Your task to perform on an android device: turn on the 24-hour format for clock Image 0: 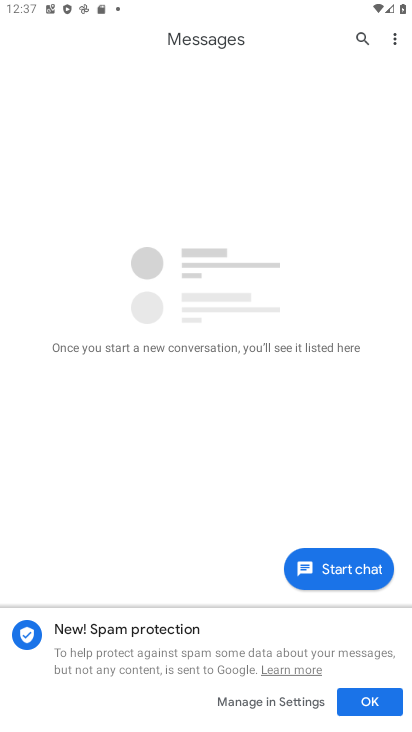
Step 0: press home button
Your task to perform on an android device: turn on the 24-hour format for clock Image 1: 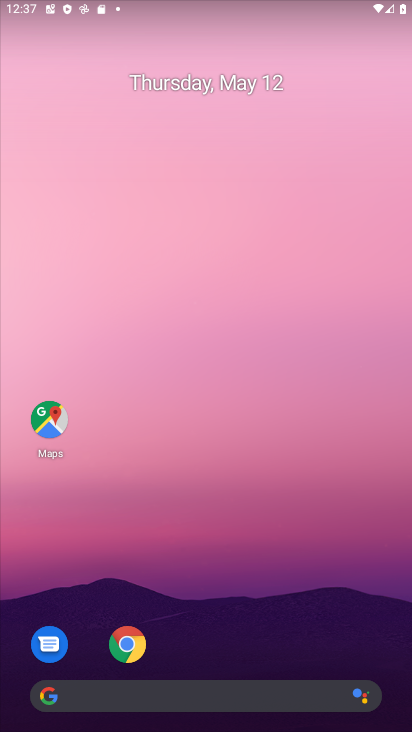
Step 1: drag from (302, 576) to (243, 196)
Your task to perform on an android device: turn on the 24-hour format for clock Image 2: 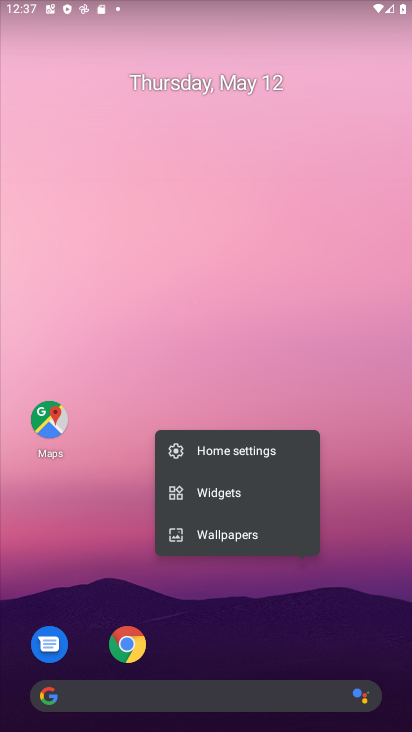
Step 2: click (337, 536)
Your task to perform on an android device: turn on the 24-hour format for clock Image 3: 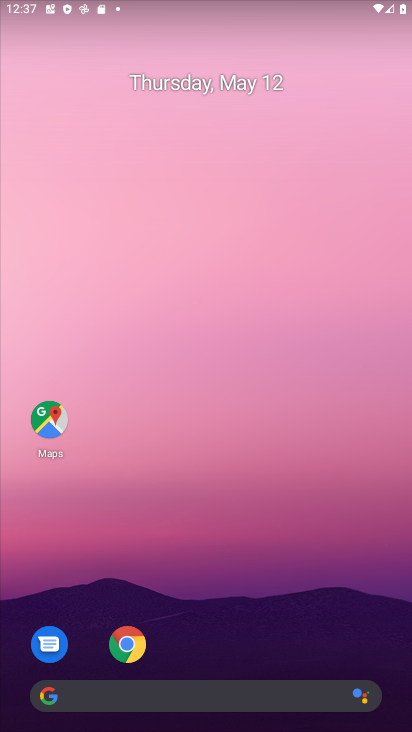
Step 3: drag from (308, 620) to (209, 37)
Your task to perform on an android device: turn on the 24-hour format for clock Image 4: 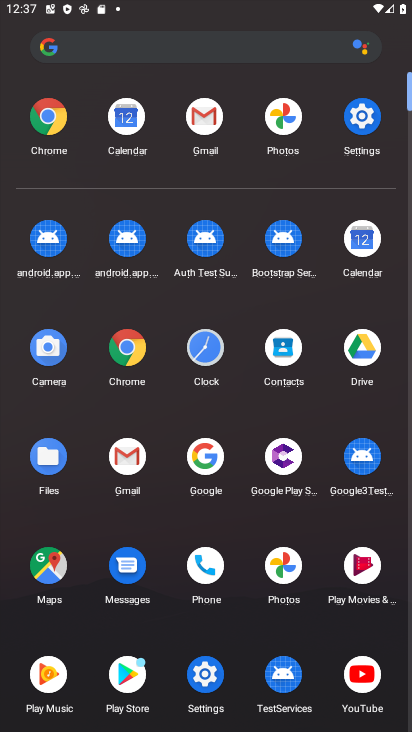
Step 4: click (210, 356)
Your task to perform on an android device: turn on the 24-hour format for clock Image 5: 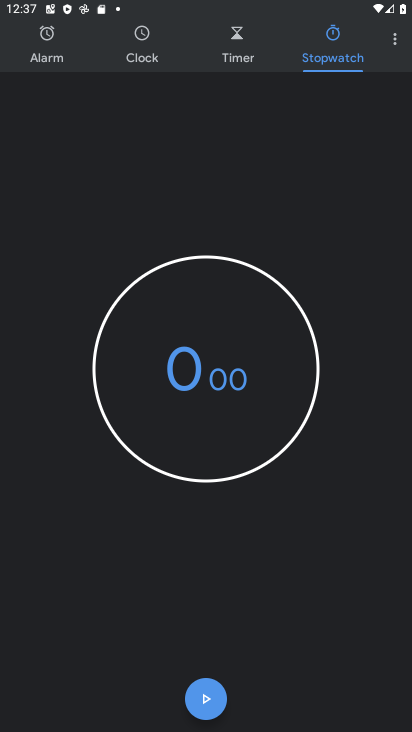
Step 5: click (399, 45)
Your task to perform on an android device: turn on the 24-hour format for clock Image 6: 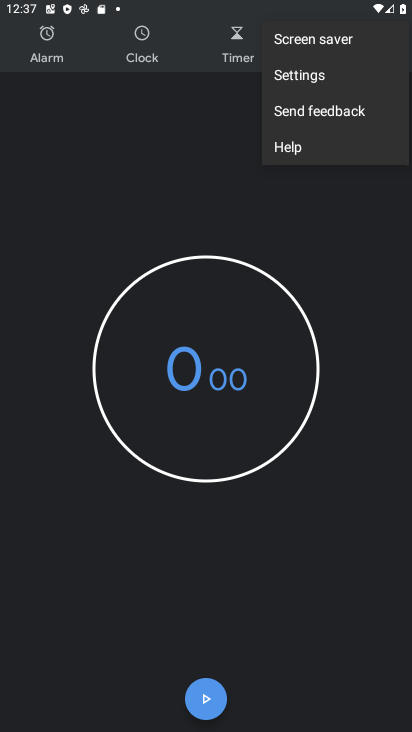
Step 6: click (369, 87)
Your task to perform on an android device: turn on the 24-hour format for clock Image 7: 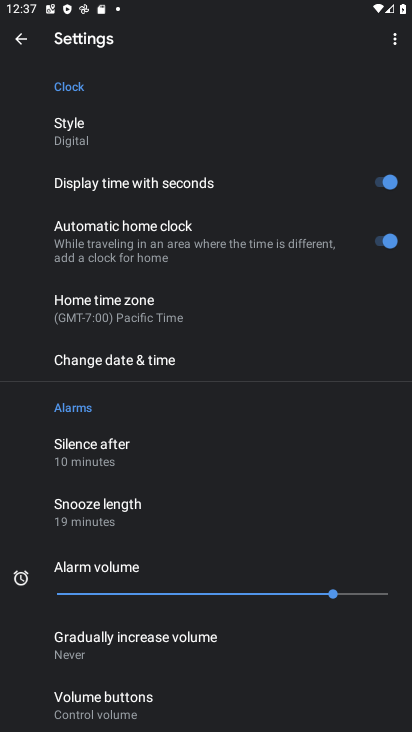
Step 7: click (245, 365)
Your task to perform on an android device: turn on the 24-hour format for clock Image 8: 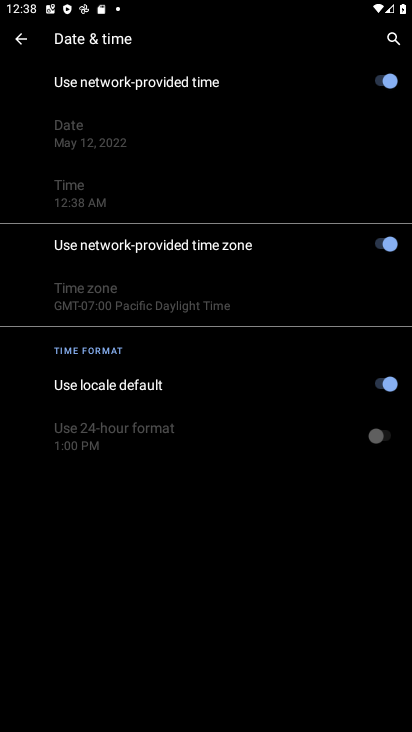
Step 8: click (383, 392)
Your task to perform on an android device: turn on the 24-hour format for clock Image 9: 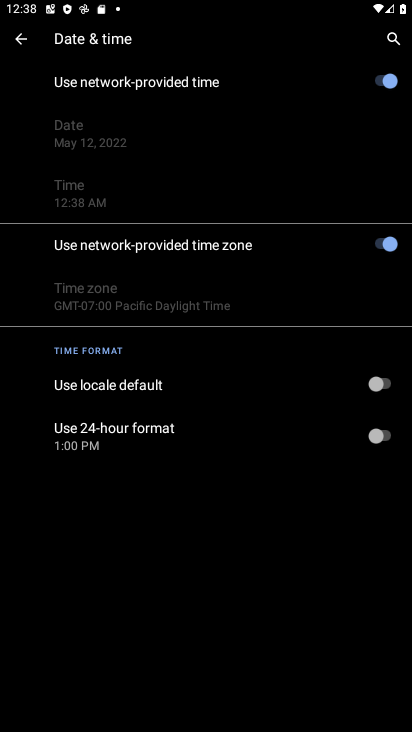
Step 9: click (383, 392)
Your task to perform on an android device: turn on the 24-hour format for clock Image 10: 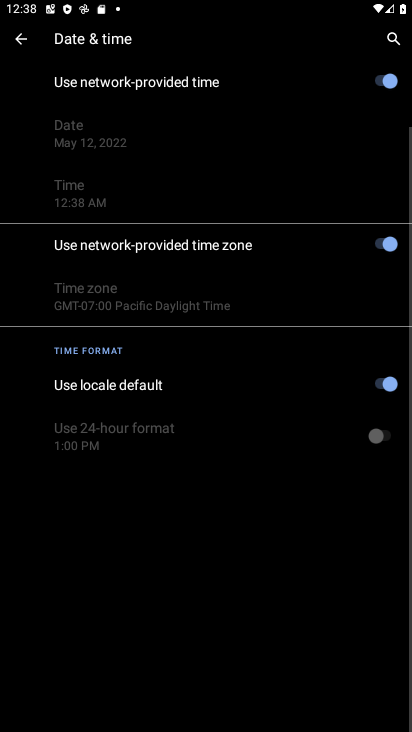
Step 10: click (371, 374)
Your task to perform on an android device: turn on the 24-hour format for clock Image 11: 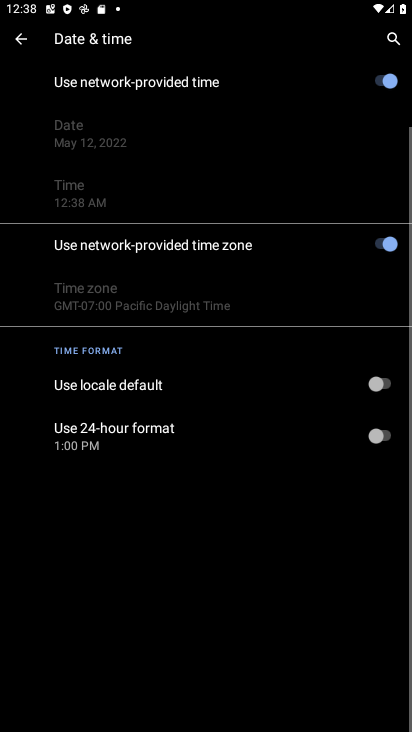
Step 11: click (371, 416)
Your task to perform on an android device: turn on the 24-hour format for clock Image 12: 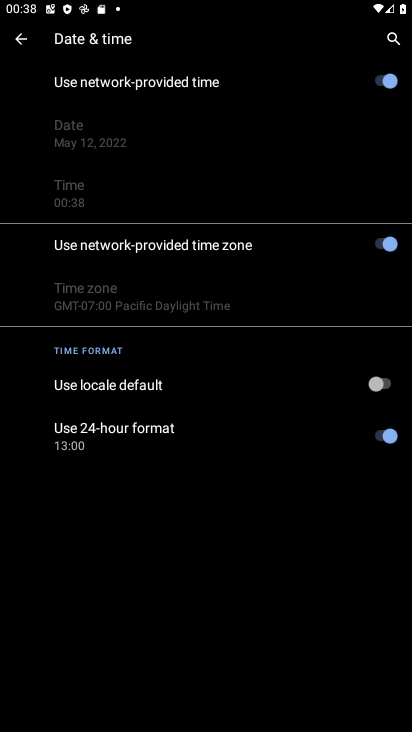
Step 12: task complete